Your task to perform on an android device: open app "Google Chat" Image 0: 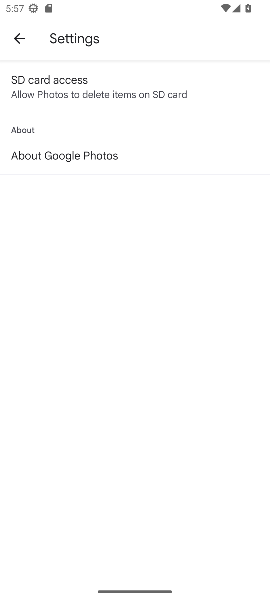
Step 0: press home button
Your task to perform on an android device: open app "Google Chat" Image 1: 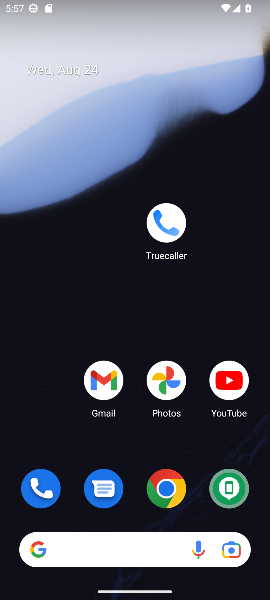
Step 1: drag from (126, 517) to (126, 77)
Your task to perform on an android device: open app "Google Chat" Image 2: 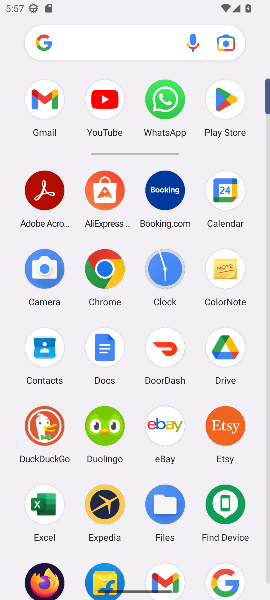
Step 2: click (209, 97)
Your task to perform on an android device: open app "Google Chat" Image 3: 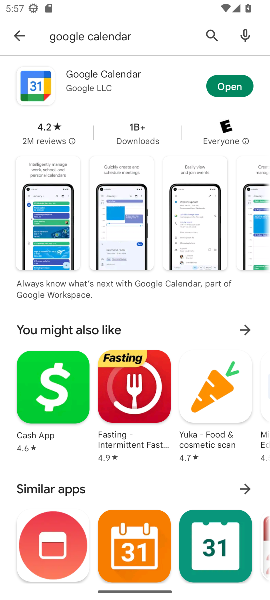
Step 3: click (215, 39)
Your task to perform on an android device: open app "Google Chat" Image 4: 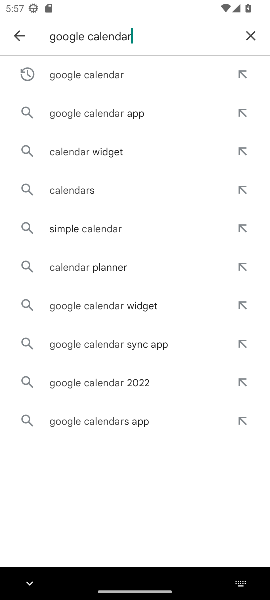
Step 4: click (242, 39)
Your task to perform on an android device: open app "Google Chat" Image 5: 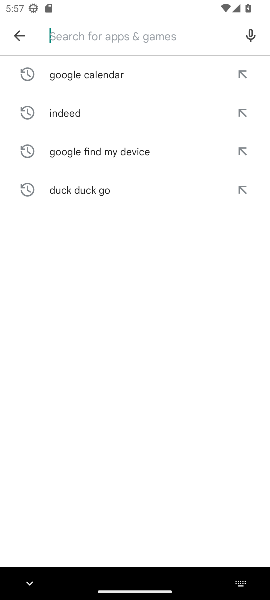
Step 5: type "google chat"
Your task to perform on an android device: open app "Google Chat" Image 6: 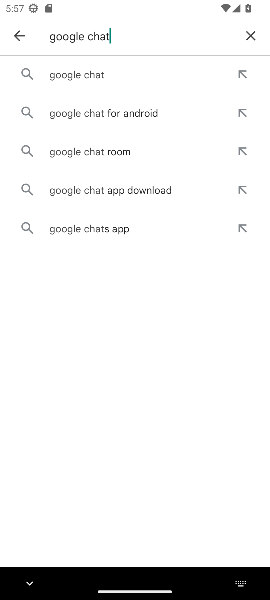
Step 6: click (93, 66)
Your task to perform on an android device: open app "Google Chat" Image 7: 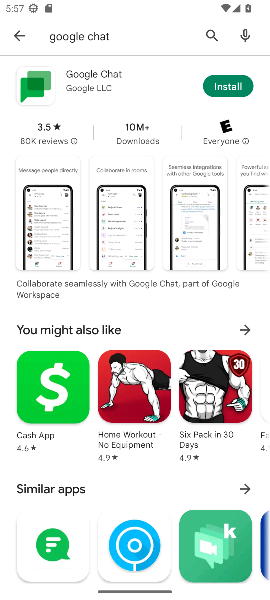
Step 7: click (222, 92)
Your task to perform on an android device: open app "Google Chat" Image 8: 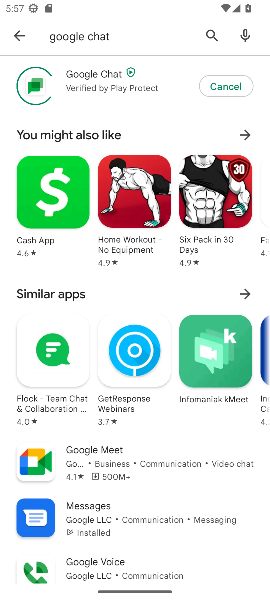
Step 8: task complete